Your task to perform on an android device: refresh tabs in the chrome app Image 0: 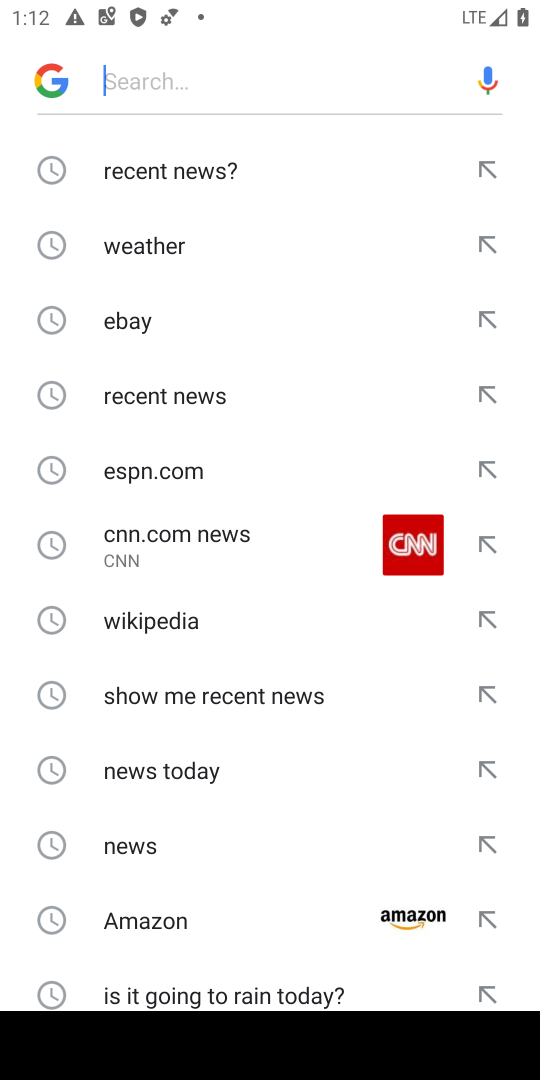
Step 0: press home button
Your task to perform on an android device: refresh tabs in the chrome app Image 1: 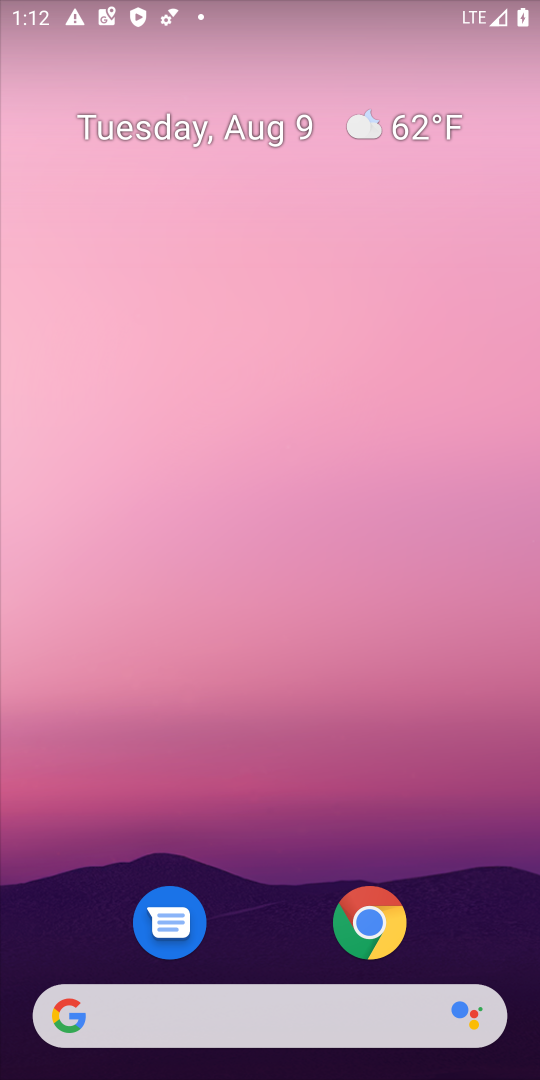
Step 1: click (394, 935)
Your task to perform on an android device: refresh tabs in the chrome app Image 2: 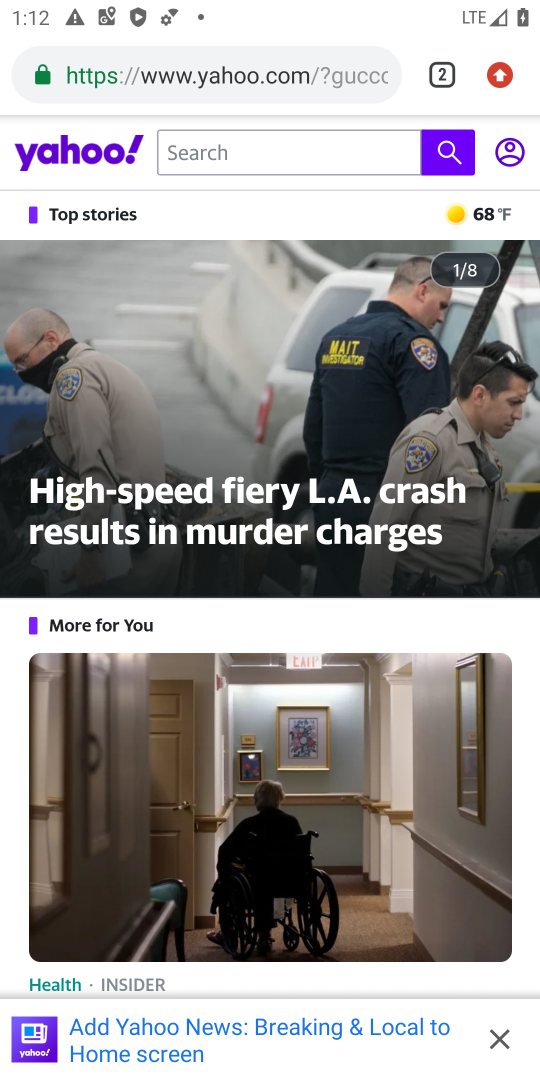
Step 2: click (440, 65)
Your task to perform on an android device: refresh tabs in the chrome app Image 3: 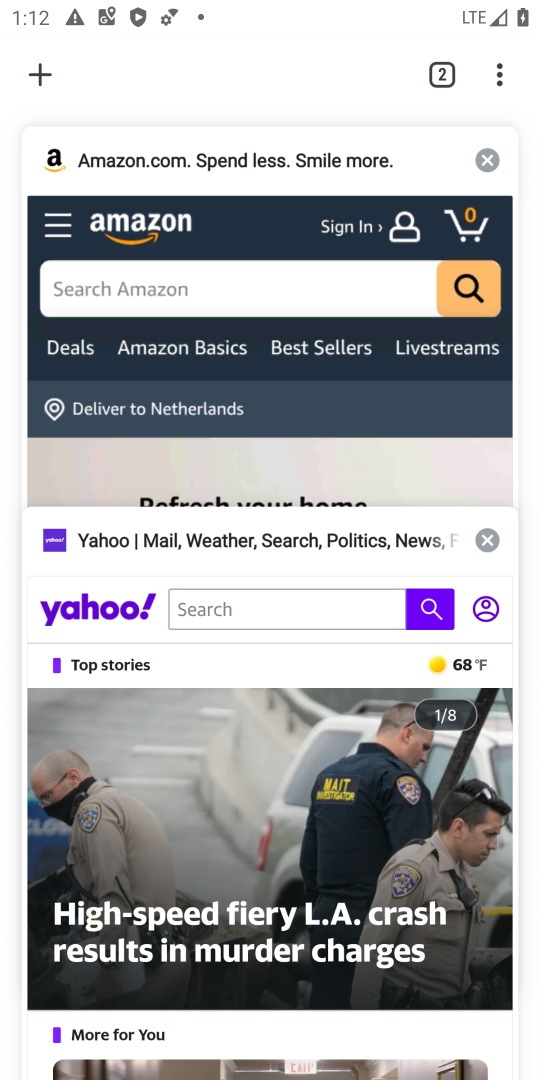
Step 3: click (504, 66)
Your task to perform on an android device: refresh tabs in the chrome app Image 4: 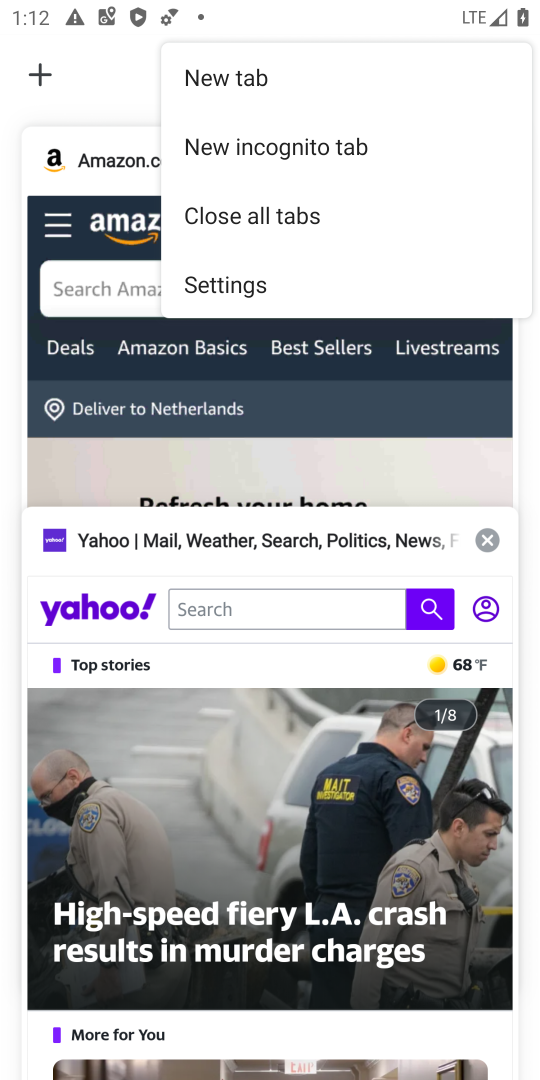
Step 4: click (208, 277)
Your task to perform on an android device: refresh tabs in the chrome app Image 5: 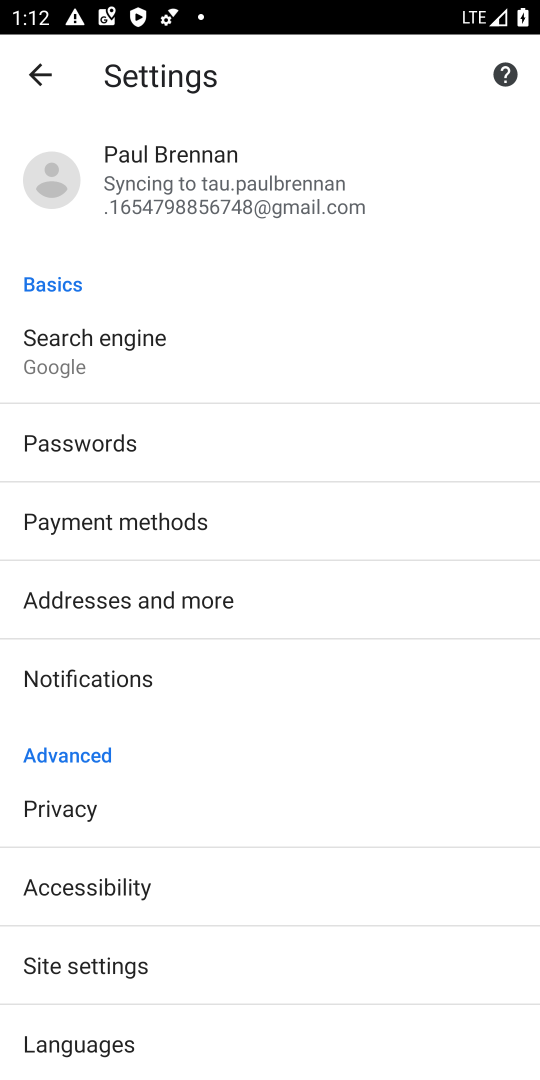
Step 5: click (47, 79)
Your task to perform on an android device: refresh tabs in the chrome app Image 6: 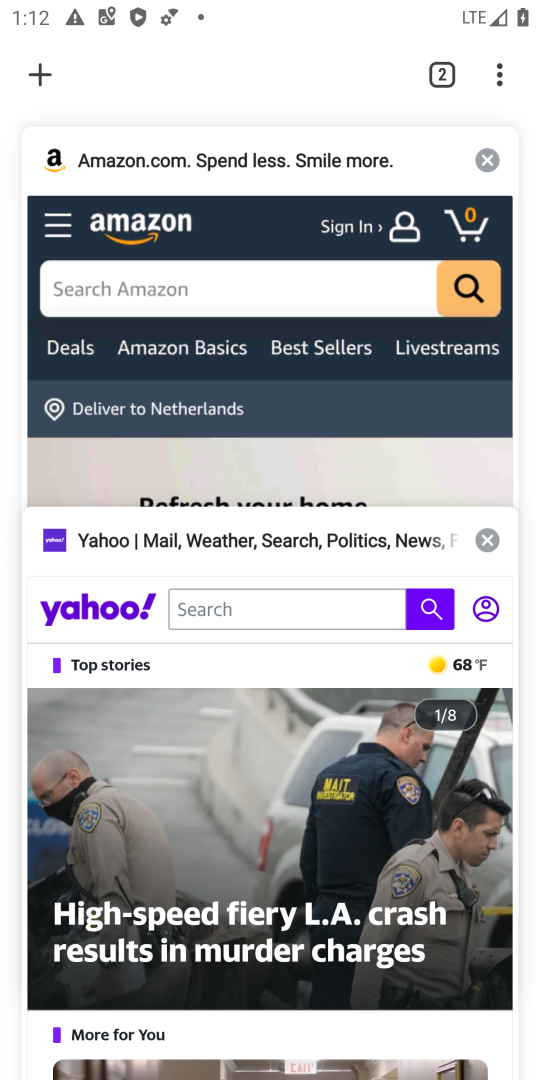
Step 6: click (230, 723)
Your task to perform on an android device: refresh tabs in the chrome app Image 7: 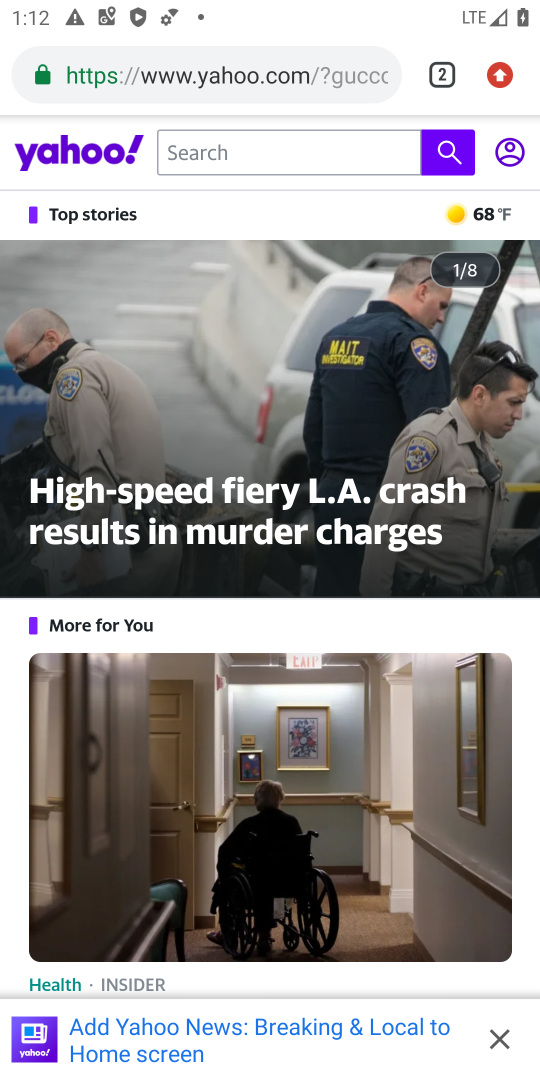
Step 7: click (503, 74)
Your task to perform on an android device: refresh tabs in the chrome app Image 8: 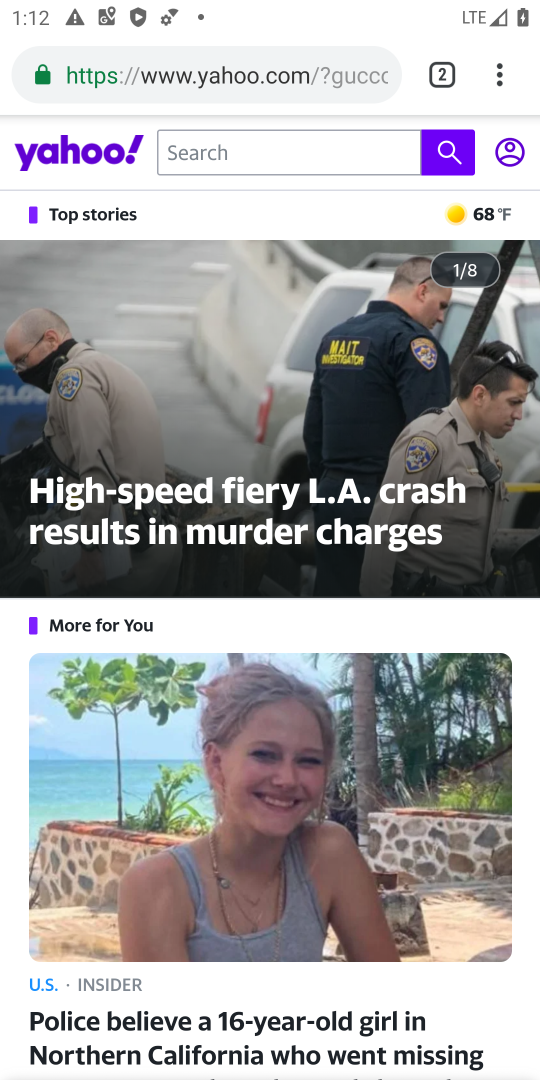
Step 8: click (499, 77)
Your task to perform on an android device: refresh tabs in the chrome app Image 9: 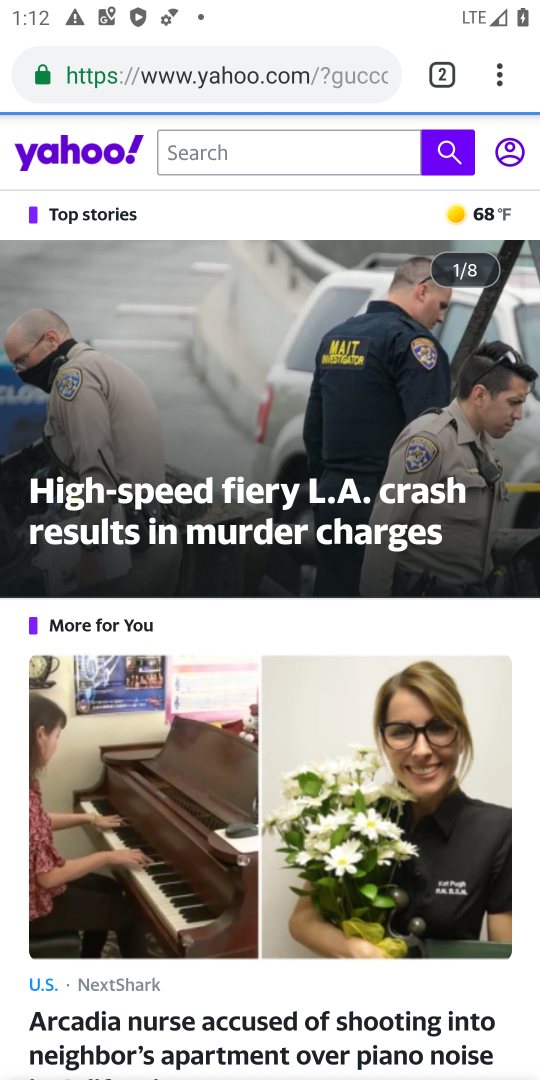
Step 9: task complete